Your task to perform on an android device: Open sound settings Image 0: 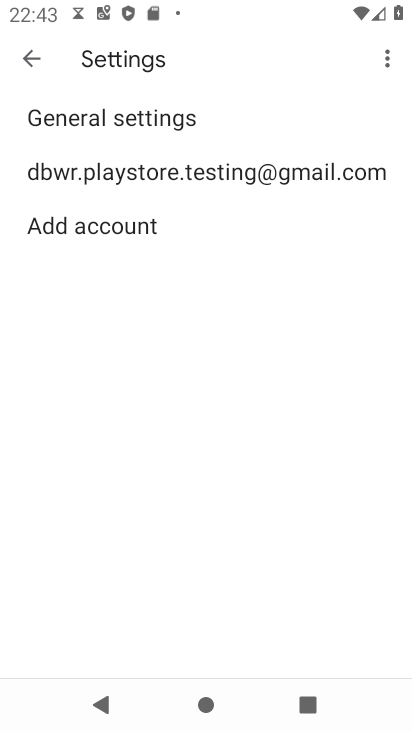
Step 0: press home button
Your task to perform on an android device: Open sound settings Image 1: 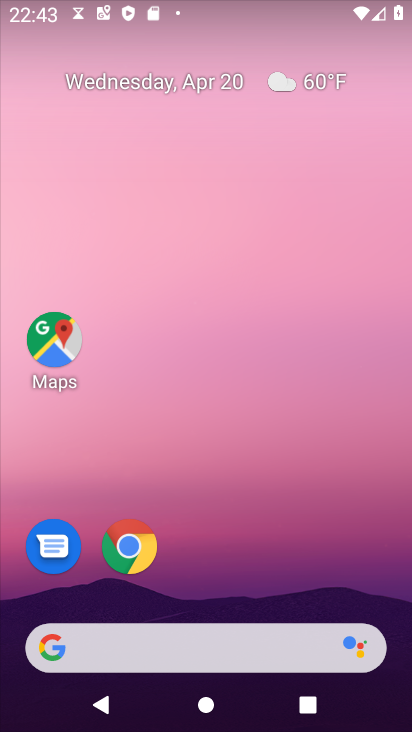
Step 1: drag from (235, 570) to (205, 50)
Your task to perform on an android device: Open sound settings Image 2: 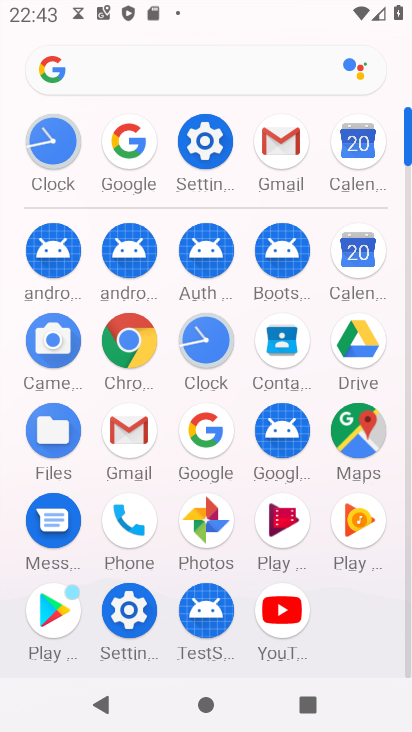
Step 2: click (198, 145)
Your task to perform on an android device: Open sound settings Image 3: 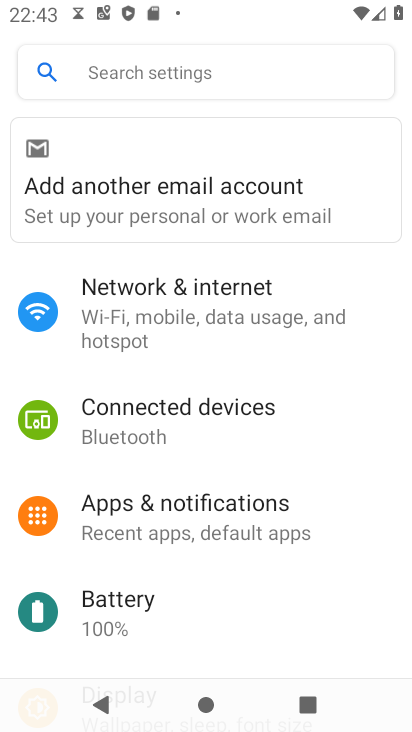
Step 3: drag from (211, 597) to (219, 129)
Your task to perform on an android device: Open sound settings Image 4: 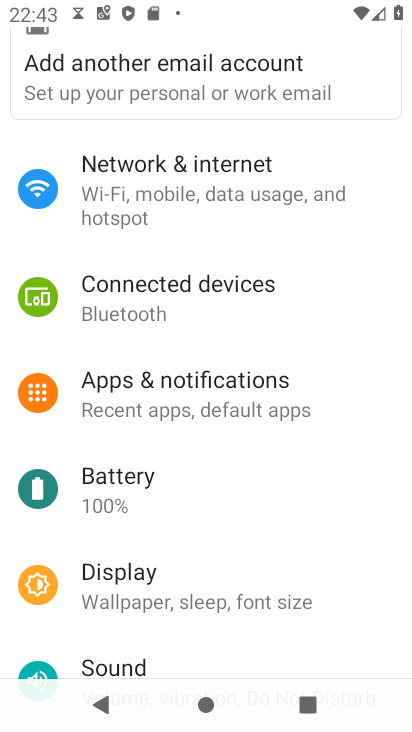
Step 4: click (189, 659)
Your task to perform on an android device: Open sound settings Image 5: 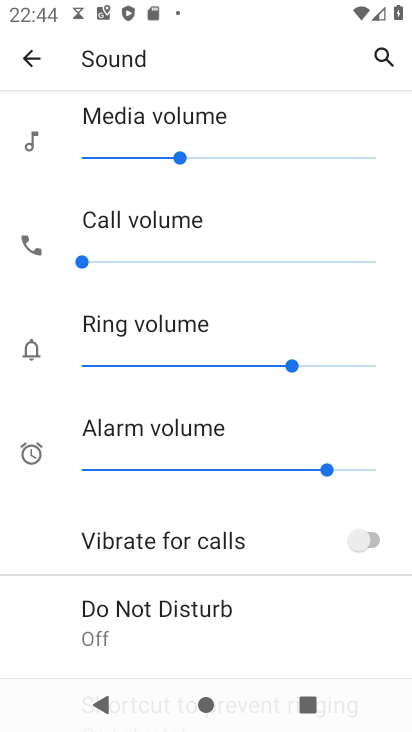
Step 5: task complete